Your task to perform on an android device: turn on the 24-hour format for clock Image 0: 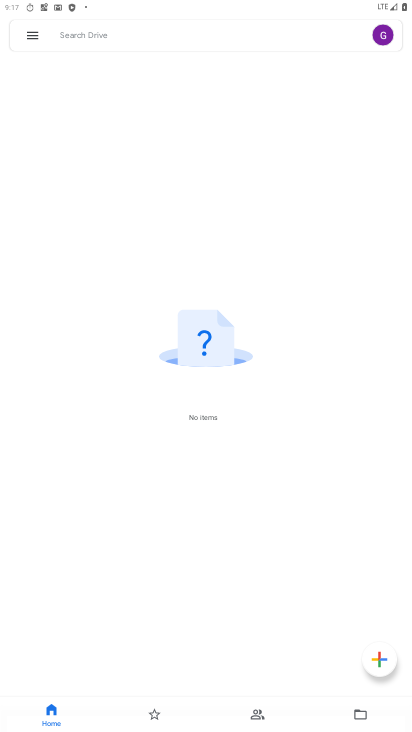
Step 0: press home button
Your task to perform on an android device: turn on the 24-hour format for clock Image 1: 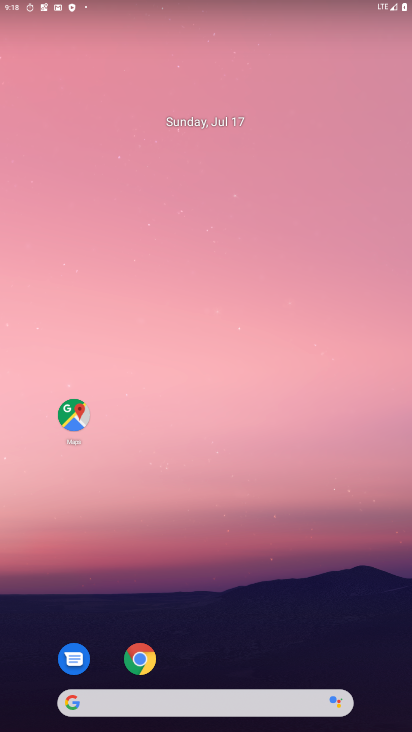
Step 1: drag from (239, 657) to (195, 89)
Your task to perform on an android device: turn on the 24-hour format for clock Image 2: 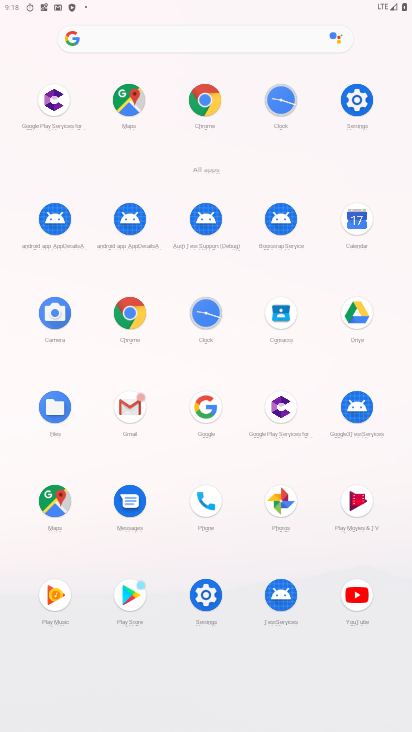
Step 2: click (289, 109)
Your task to perform on an android device: turn on the 24-hour format for clock Image 3: 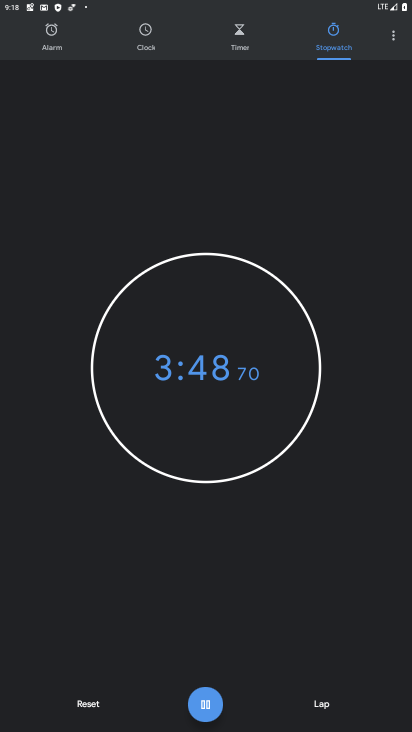
Step 3: click (396, 32)
Your task to perform on an android device: turn on the 24-hour format for clock Image 4: 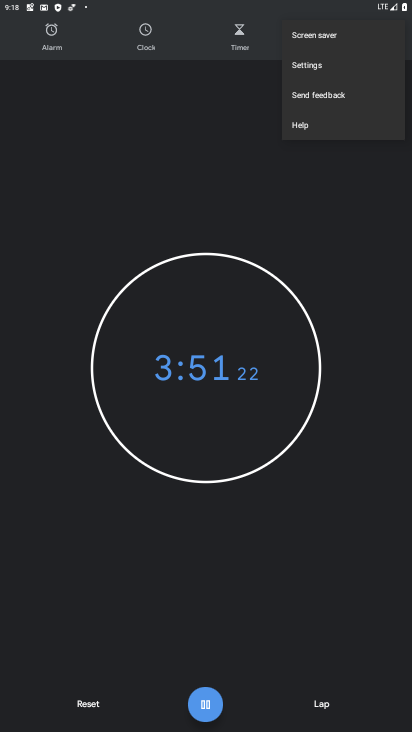
Step 4: click (360, 71)
Your task to perform on an android device: turn on the 24-hour format for clock Image 5: 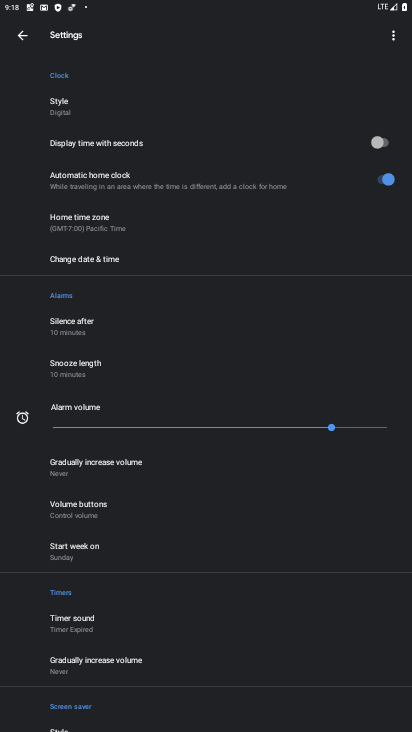
Step 5: click (204, 264)
Your task to perform on an android device: turn on the 24-hour format for clock Image 6: 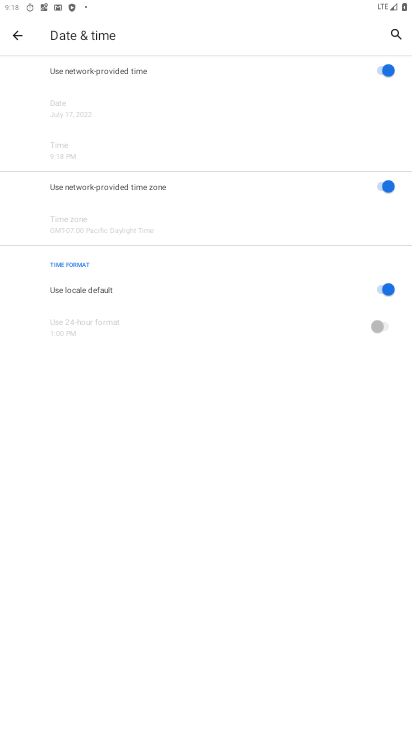
Step 6: click (385, 289)
Your task to perform on an android device: turn on the 24-hour format for clock Image 7: 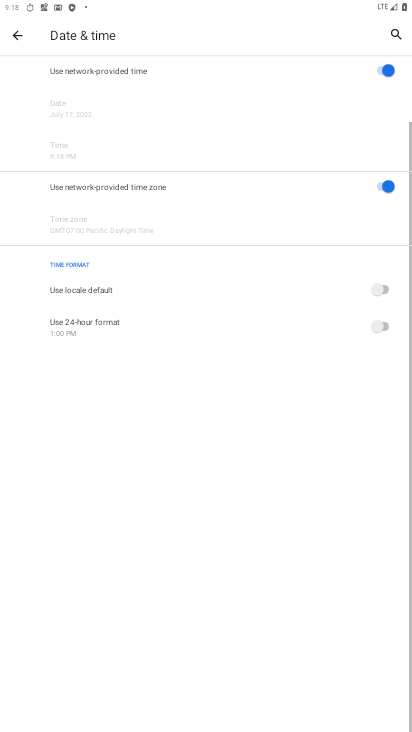
Step 7: click (383, 332)
Your task to perform on an android device: turn on the 24-hour format for clock Image 8: 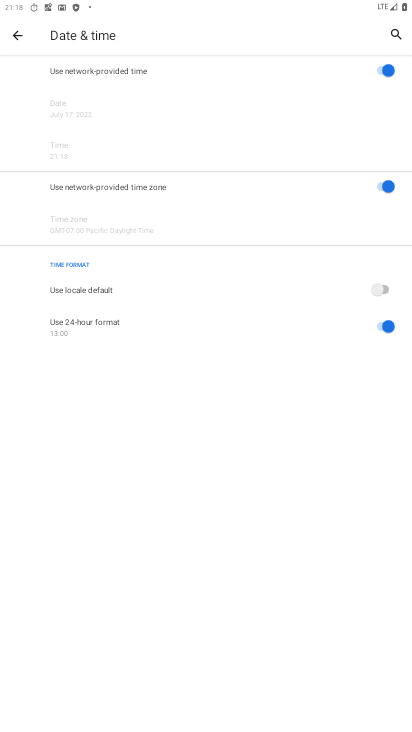
Step 8: task complete